Your task to perform on an android device: Open ESPN.com Image 0: 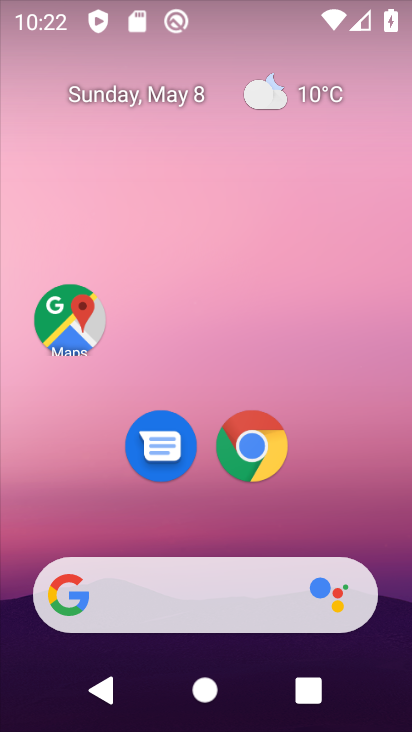
Step 0: click (254, 454)
Your task to perform on an android device: Open ESPN.com Image 1: 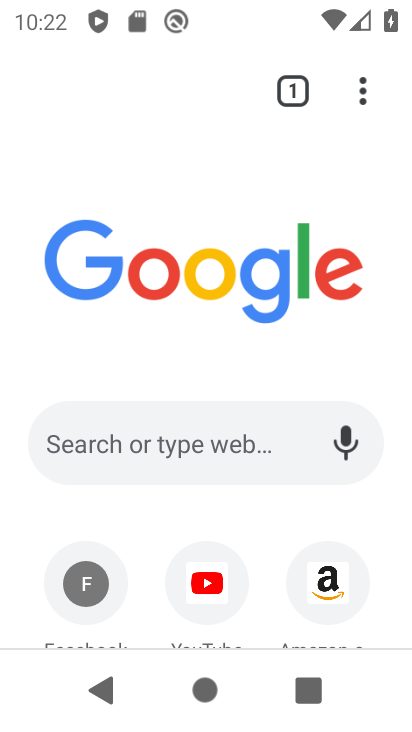
Step 1: drag from (396, 597) to (399, 442)
Your task to perform on an android device: Open ESPN.com Image 2: 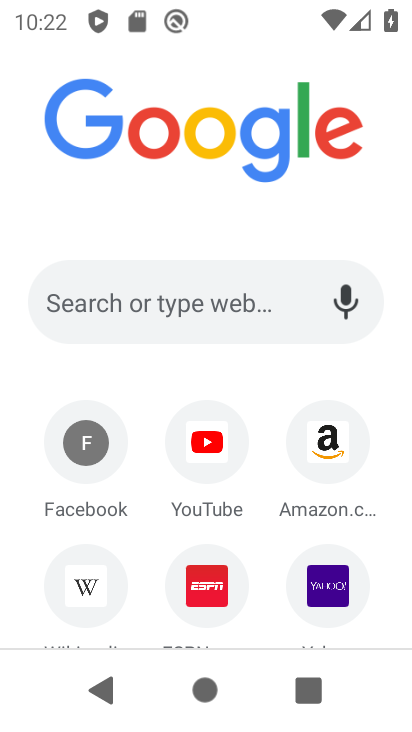
Step 2: click (194, 589)
Your task to perform on an android device: Open ESPN.com Image 3: 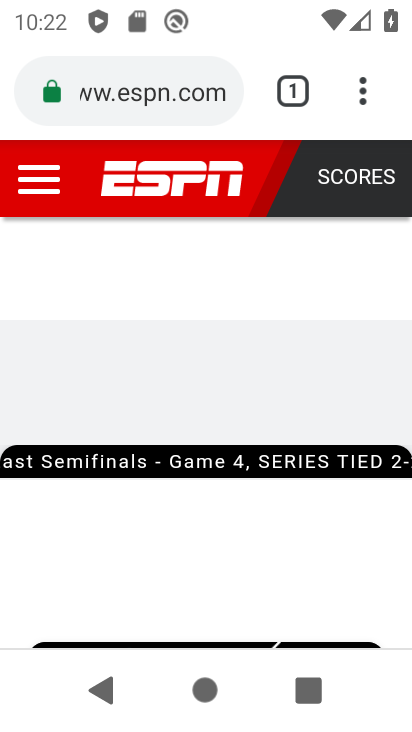
Step 3: task complete